Your task to perform on an android device: star an email in the gmail app Image 0: 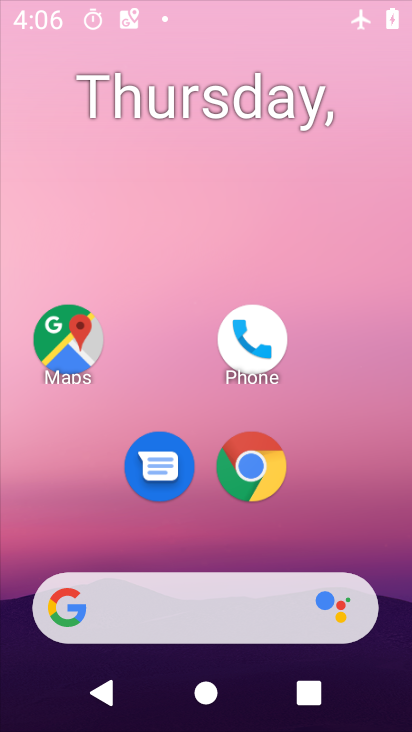
Step 0: click (342, 157)
Your task to perform on an android device: star an email in the gmail app Image 1: 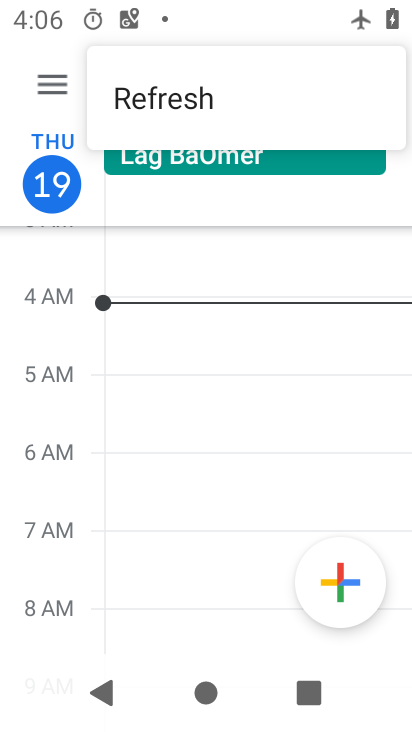
Step 1: drag from (219, 326) to (299, 656)
Your task to perform on an android device: star an email in the gmail app Image 2: 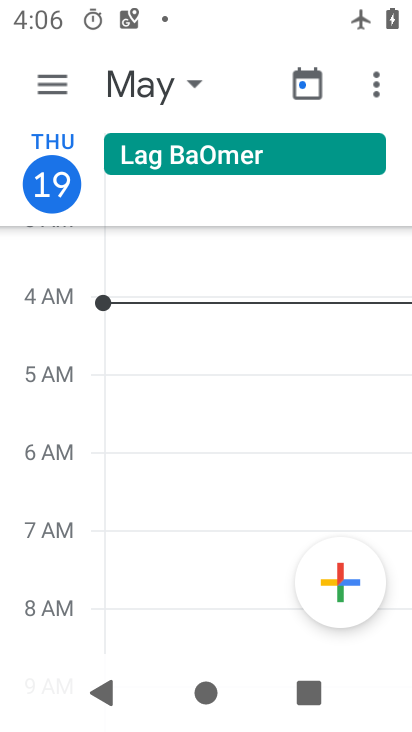
Step 2: press home button
Your task to perform on an android device: star an email in the gmail app Image 3: 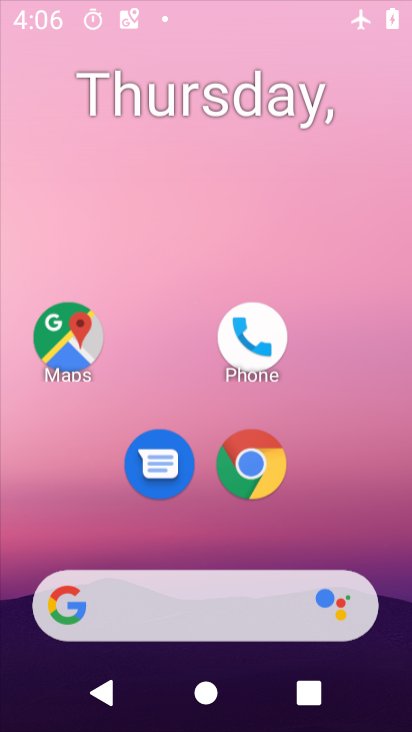
Step 3: drag from (201, 550) to (198, 31)
Your task to perform on an android device: star an email in the gmail app Image 4: 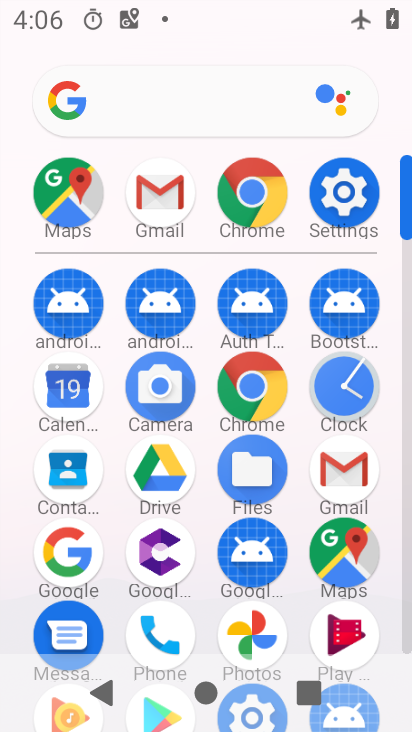
Step 4: drag from (212, 615) to (220, 182)
Your task to perform on an android device: star an email in the gmail app Image 5: 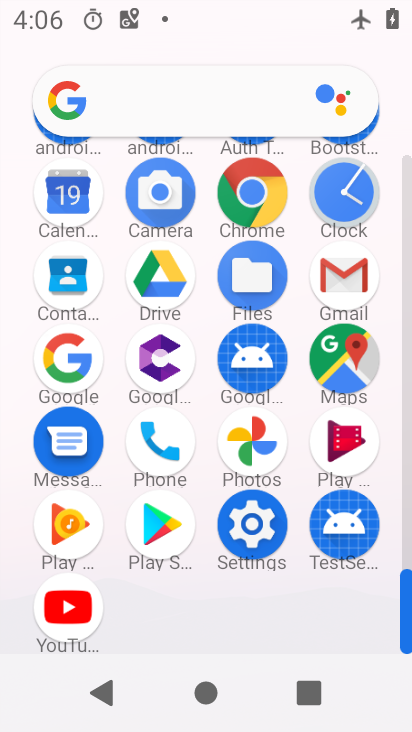
Step 5: click (327, 275)
Your task to perform on an android device: star an email in the gmail app Image 6: 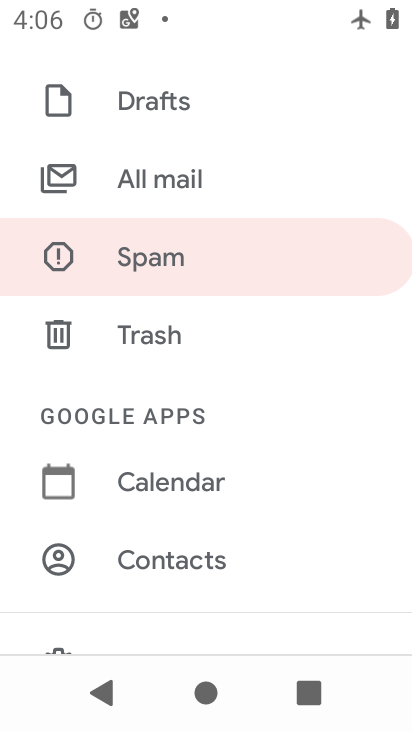
Step 6: task complete